Your task to perform on an android device: delete a single message in the gmail app Image 0: 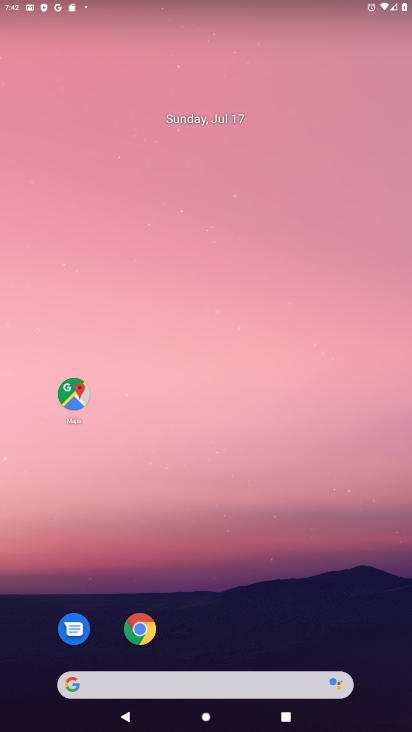
Step 0: drag from (204, 657) to (191, 78)
Your task to perform on an android device: delete a single message in the gmail app Image 1: 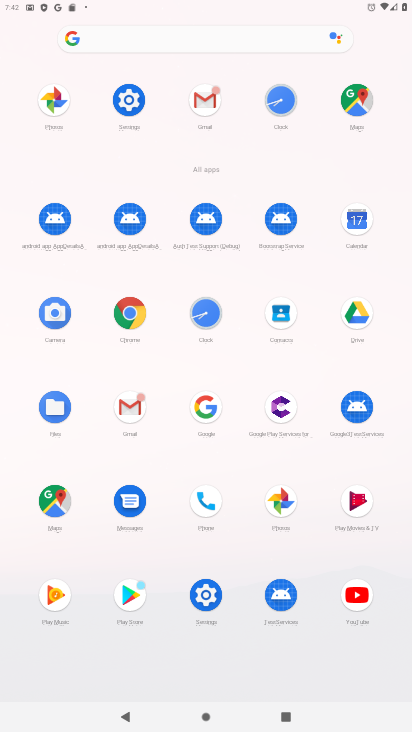
Step 1: click (136, 411)
Your task to perform on an android device: delete a single message in the gmail app Image 2: 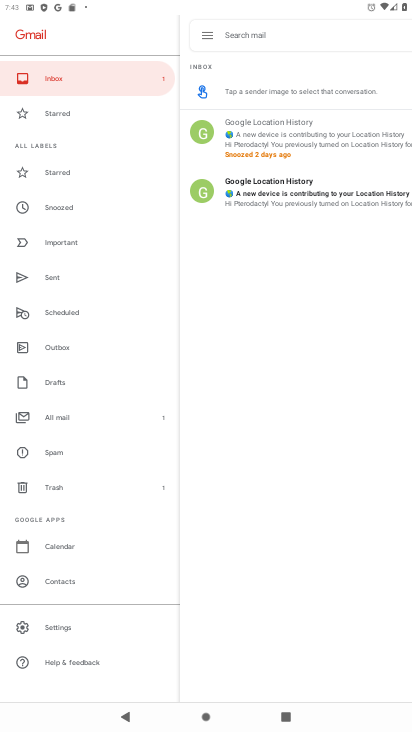
Step 2: click (264, 129)
Your task to perform on an android device: delete a single message in the gmail app Image 3: 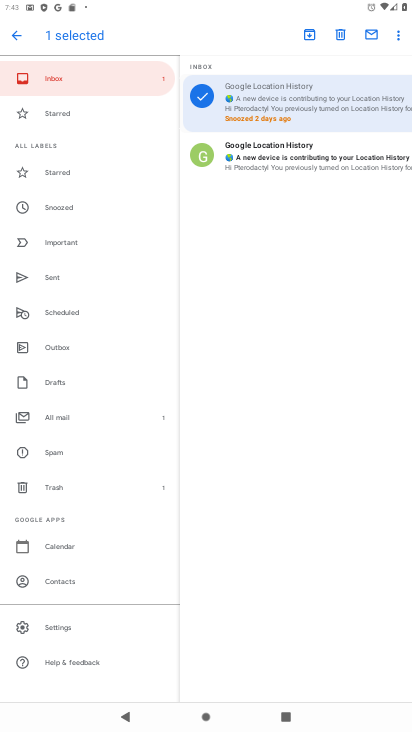
Step 3: click (259, 141)
Your task to perform on an android device: delete a single message in the gmail app Image 4: 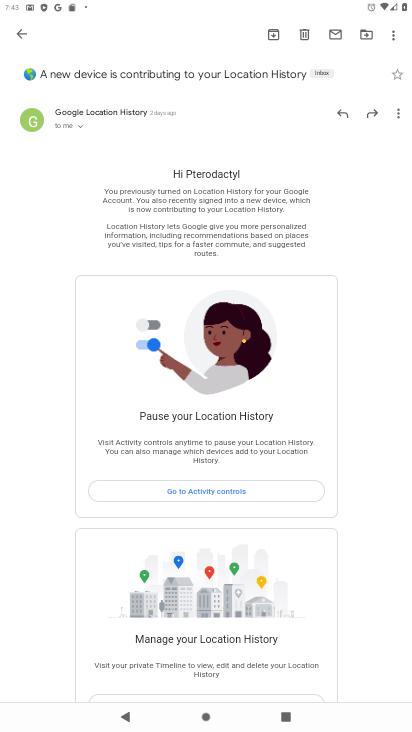
Step 4: click (300, 37)
Your task to perform on an android device: delete a single message in the gmail app Image 5: 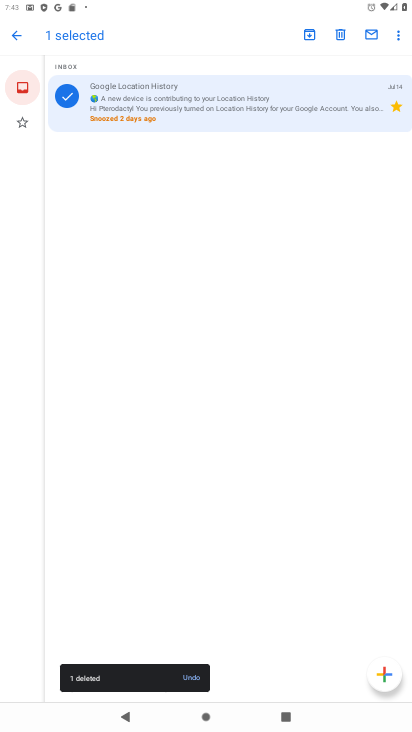
Step 5: click (280, 278)
Your task to perform on an android device: delete a single message in the gmail app Image 6: 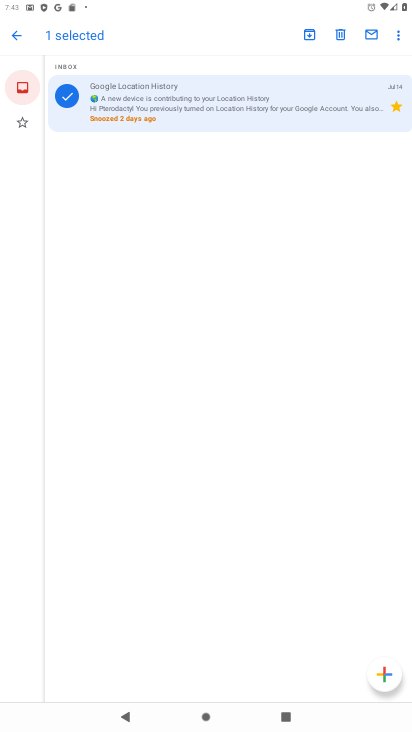
Step 6: task complete